Your task to perform on an android device: Is it going to rain tomorrow? Image 0: 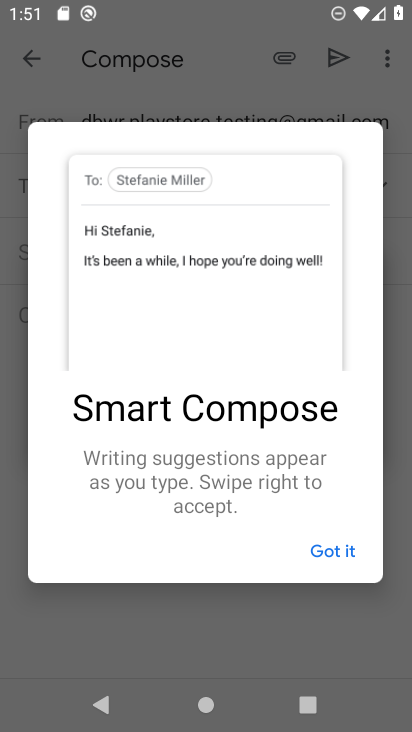
Step 0: press home button
Your task to perform on an android device: Is it going to rain tomorrow? Image 1: 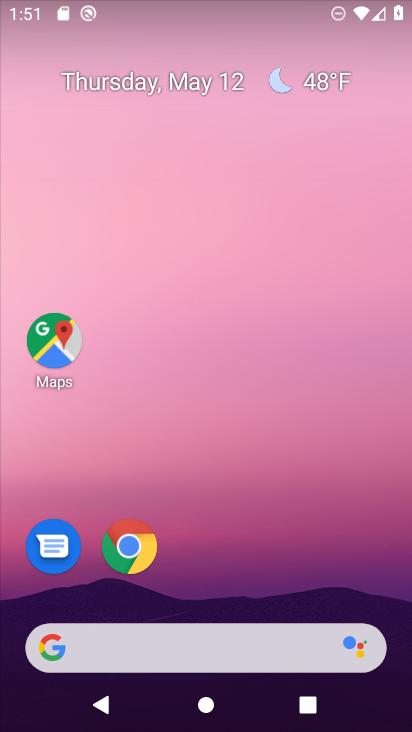
Step 1: drag from (241, 649) to (205, 217)
Your task to perform on an android device: Is it going to rain tomorrow? Image 2: 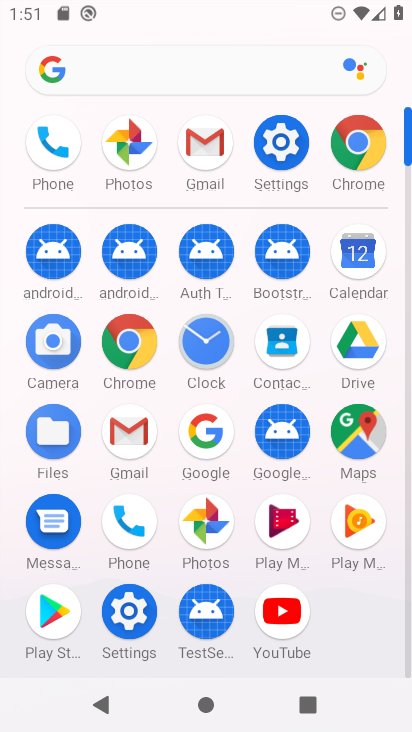
Step 2: click (123, 86)
Your task to perform on an android device: Is it going to rain tomorrow? Image 3: 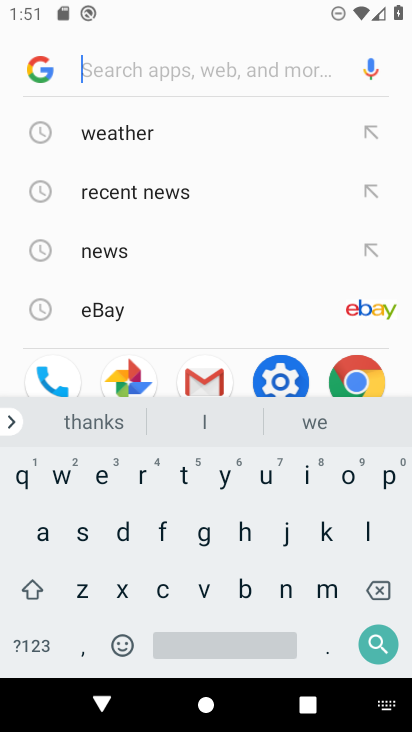
Step 3: click (104, 134)
Your task to perform on an android device: Is it going to rain tomorrow? Image 4: 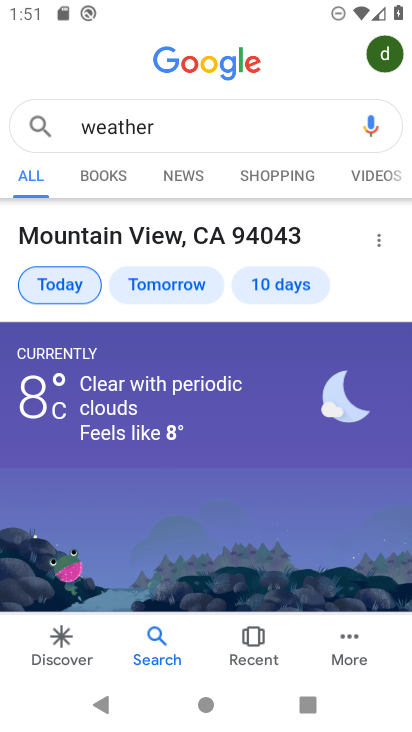
Step 4: click (148, 287)
Your task to perform on an android device: Is it going to rain tomorrow? Image 5: 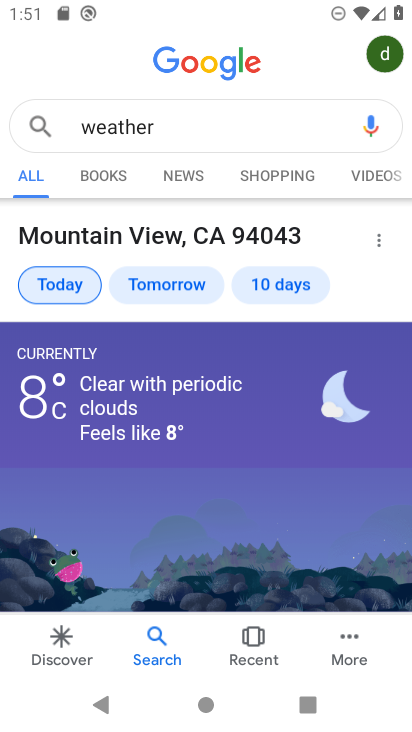
Step 5: click (148, 284)
Your task to perform on an android device: Is it going to rain tomorrow? Image 6: 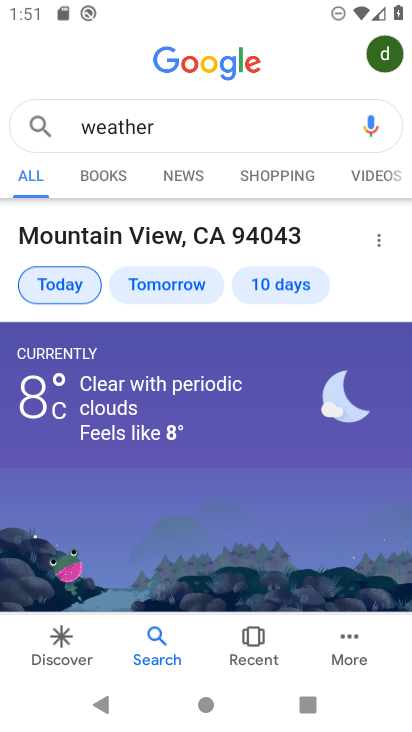
Step 6: task complete